Your task to perform on an android device: open chrome and create a bookmark for the current page Image 0: 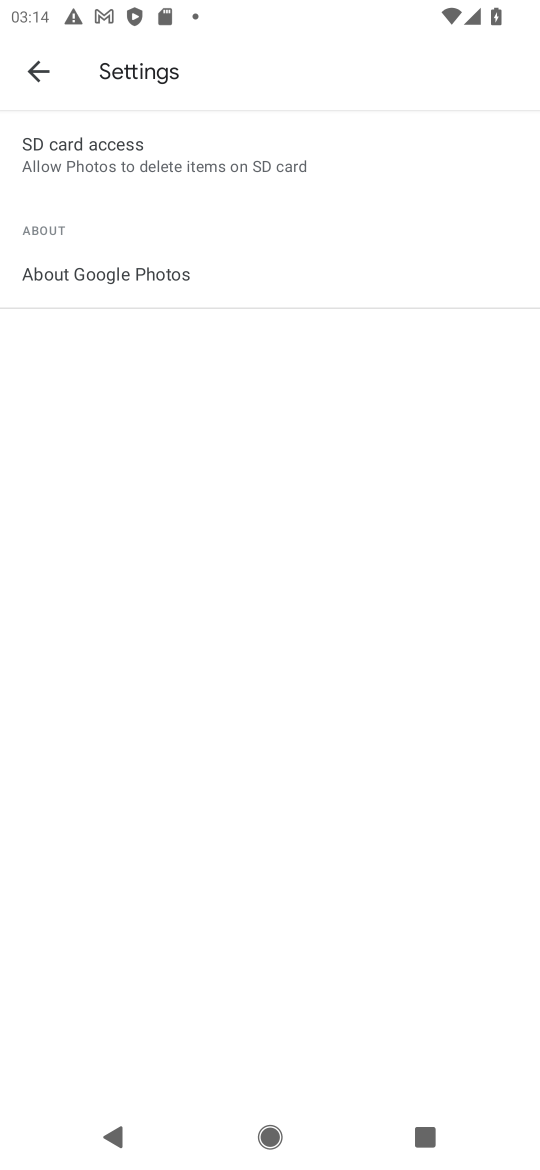
Step 0: press home button
Your task to perform on an android device: open chrome and create a bookmark for the current page Image 1: 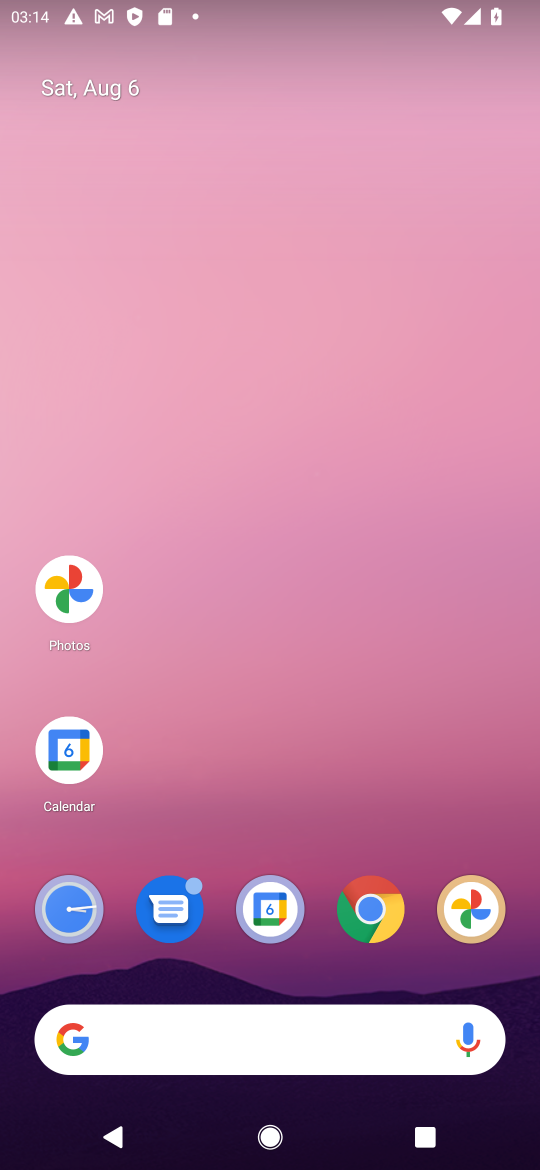
Step 1: click (370, 908)
Your task to perform on an android device: open chrome and create a bookmark for the current page Image 2: 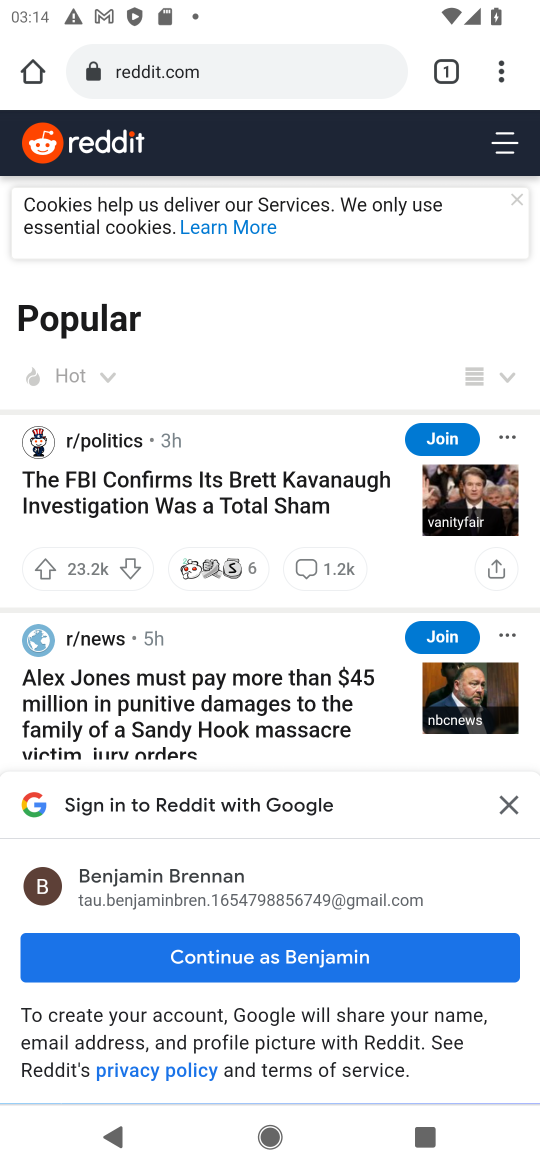
Step 2: click (504, 65)
Your task to perform on an android device: open chrome and create a bookmark for the current page Image 3: 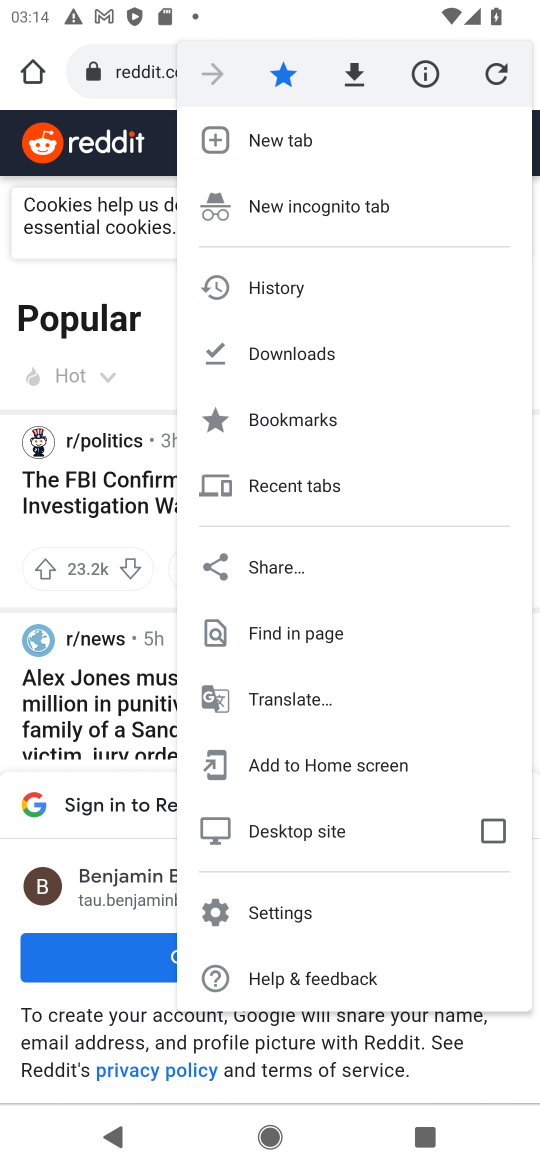
Step 3: task complete